Your task to perform on an android device: turn off priority inbox in the gmail app Image 0: 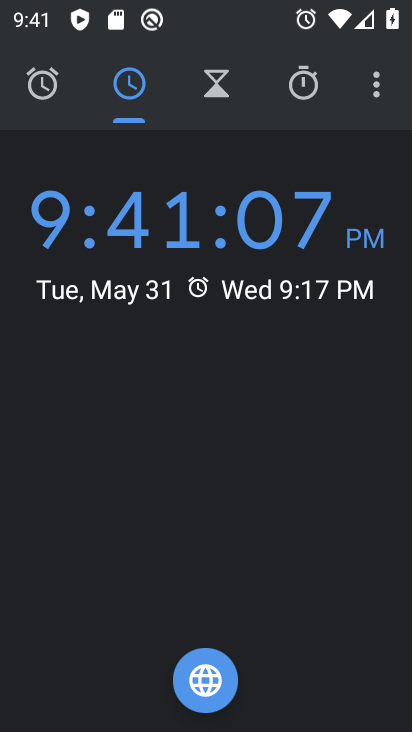
Step 0: press home button
Your task to perform on an android device: turn off priority inbox in the gmail app Image 1: 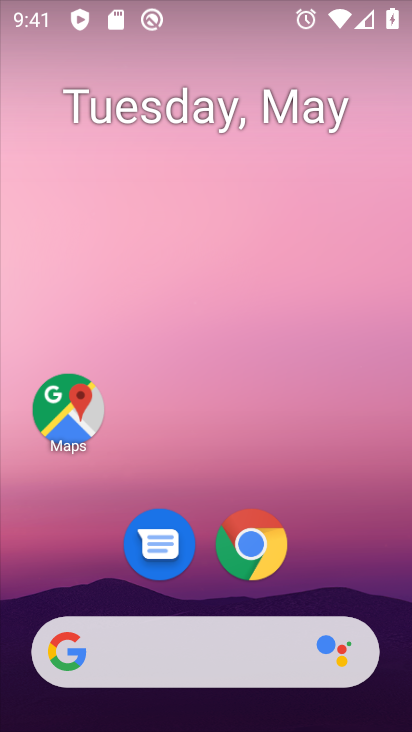
Step 1: drag from (343, 556) to (359, 188)
Your task to perform on an android device: turn off priority inbox in the gmail app Image 2: 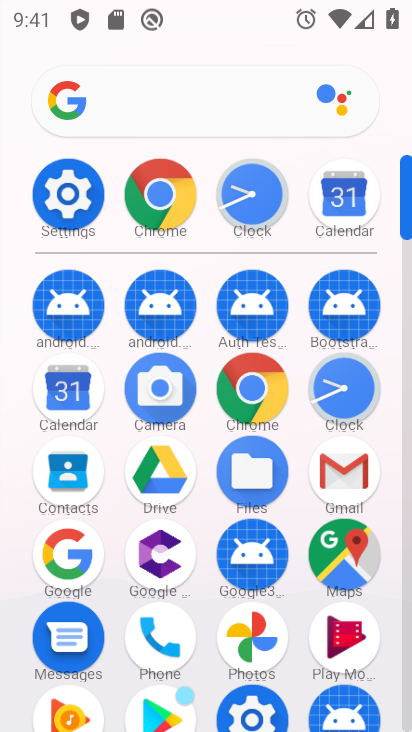
Step 2: click (341, 462)
Your task to perform on an android device: turn off priority inbox in the gmail app Image 3: 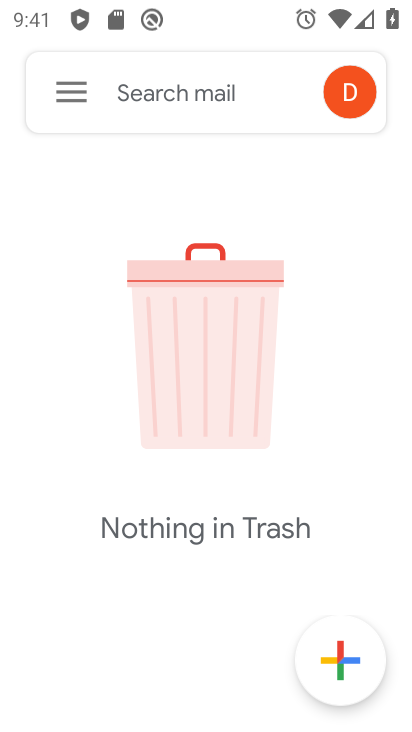
Step 3: click (59, 79)
Your task to perform on an android device: turn off priority inbox in the gmail app Image 4: 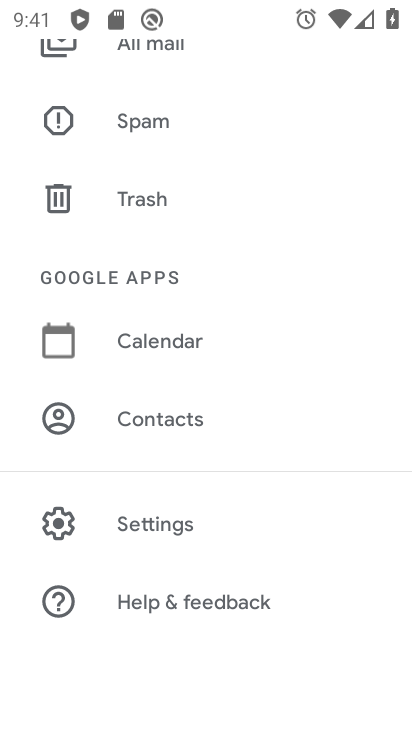
Step 4: click (150, 533)
Your task to perform on an android device: turn off priority inbox in the gmail app Image 5: 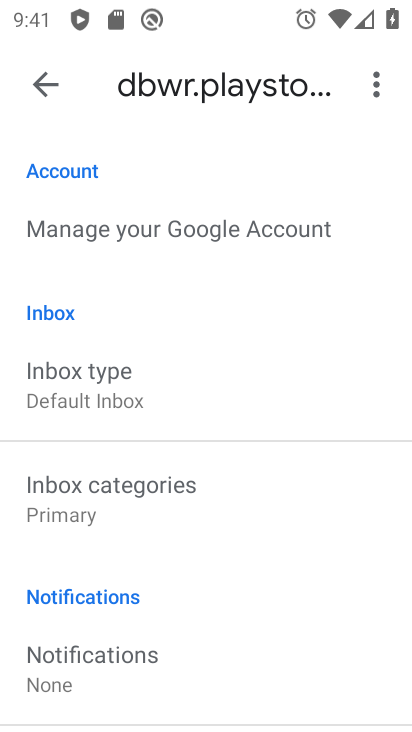
Step 5: click (130, 393)
Your task to perform on an android device: turn off priority inbox in the gmail app Image 6: 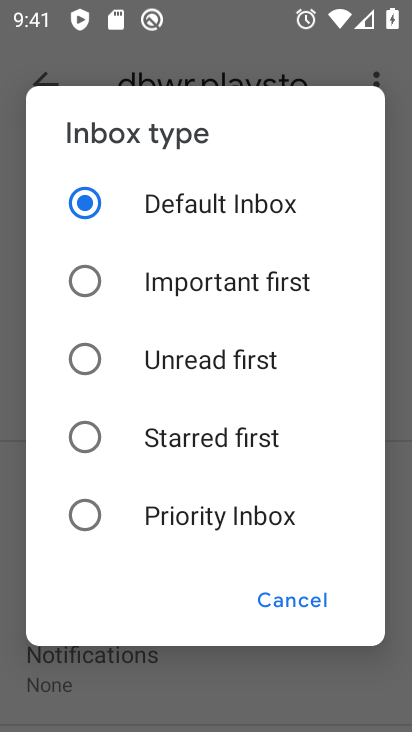
Step 6: task complete